Your task to perform on an android device: Play the last video I watched on Youtube Image 0: 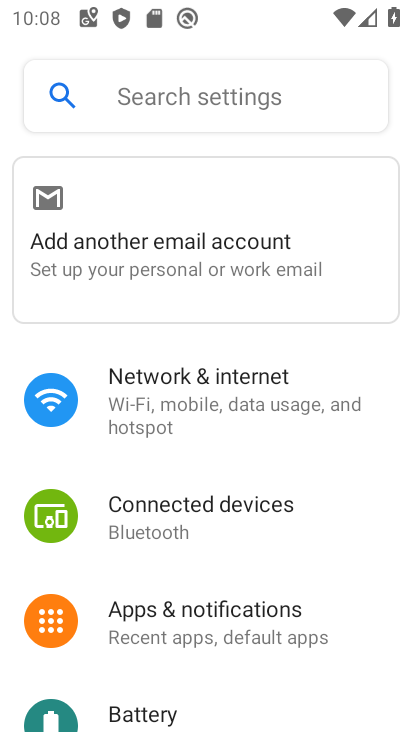
Step 0: press home button
Your task to perform on an android device: Play the last video I watched on Youtube Image 1: 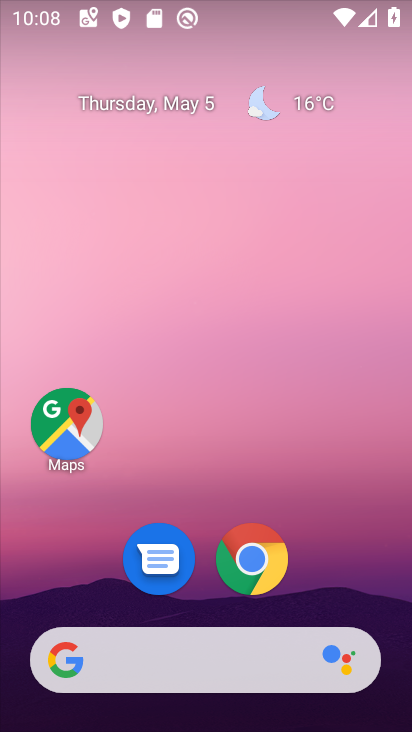
Step 1: drag from (349, 565) to (347, 5)
Your task to perform on an android device: Play the last video I watched on Youtube Image 2: 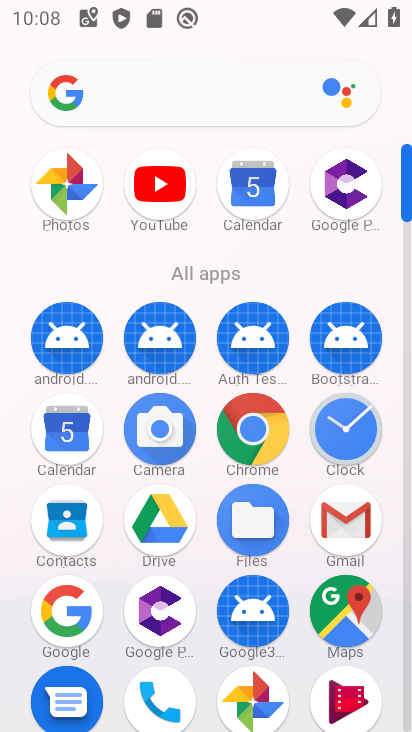
Step 2: click (258, 124)
Your task to perform on an android device: Play the last video I watched on Youtube Image 3: 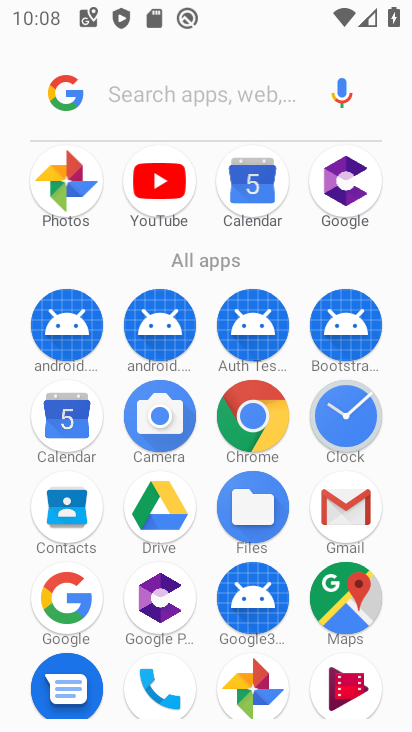
Step 3: task complete